Your task to perform on an android device: Check the weather Image 0: 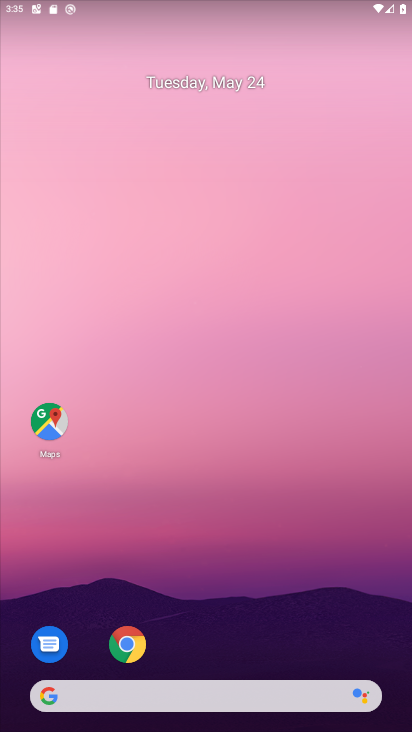
Step 0: drag from (328, 637) to (221, 128)
Your task to perform on an android device: Check the weather Image 1: 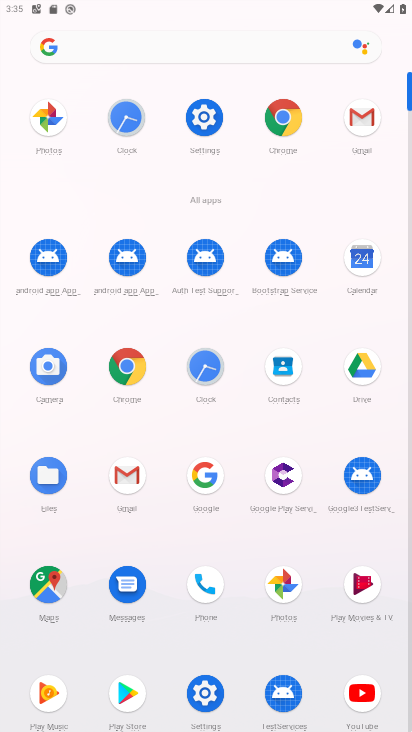
Step 1: click (196, 50)
Your task to perform on an android device: Check the weather Image 2: 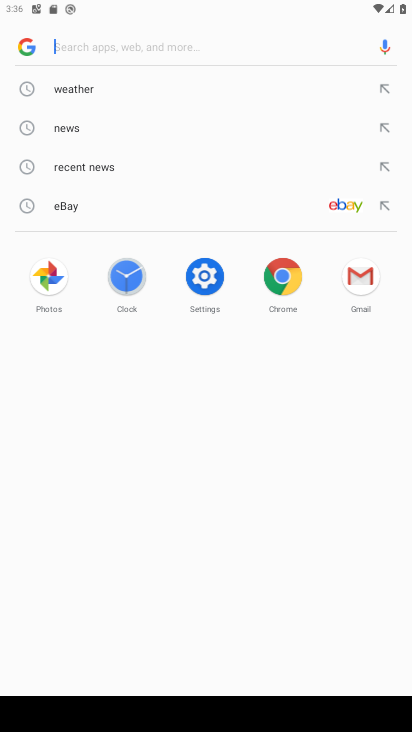
Step 2: click (177, 94)
Your task to perform on an android device: Check the weather Image 3: 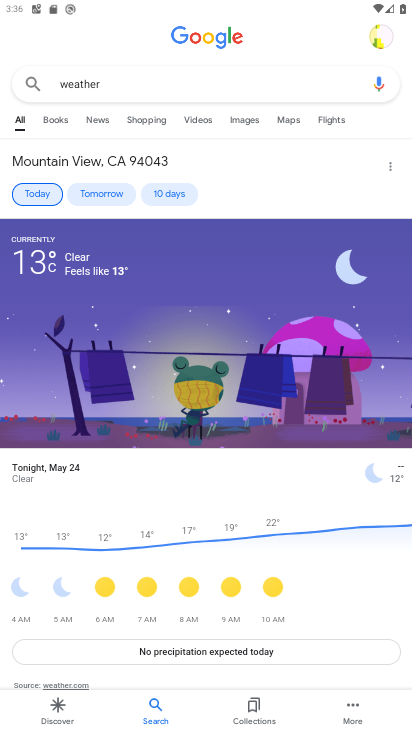
Step 3: task complete